Your task to perform on an android device: What's the weather? Image 0: 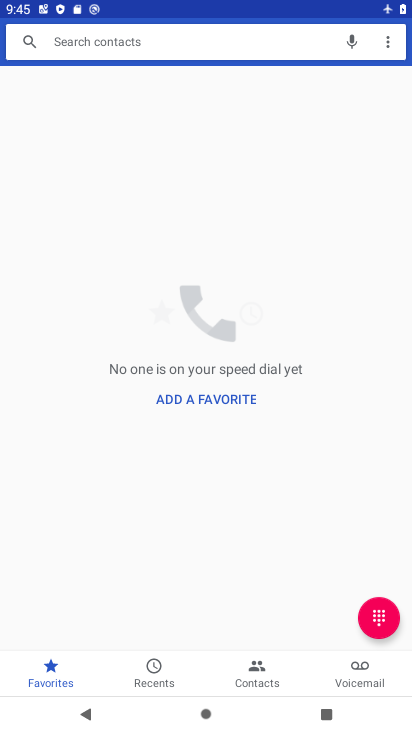
Step 0: press back button
Your task to perform on an android device: What's the weather? Image 1: 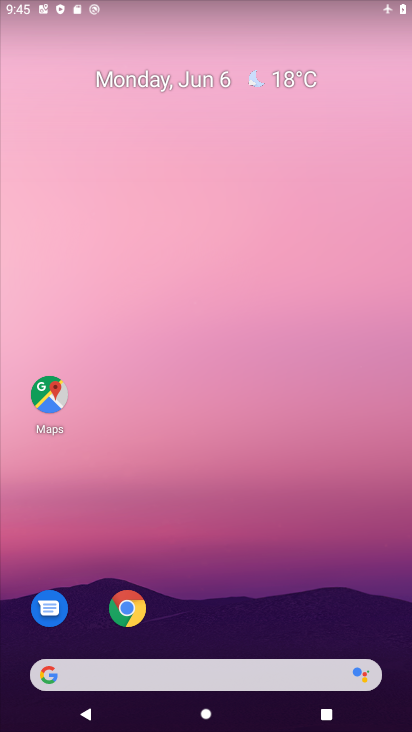
Step 1: drag from (268, 587) to (195, 172)
Your task to perform on an android device: What's the weather? Image 2: 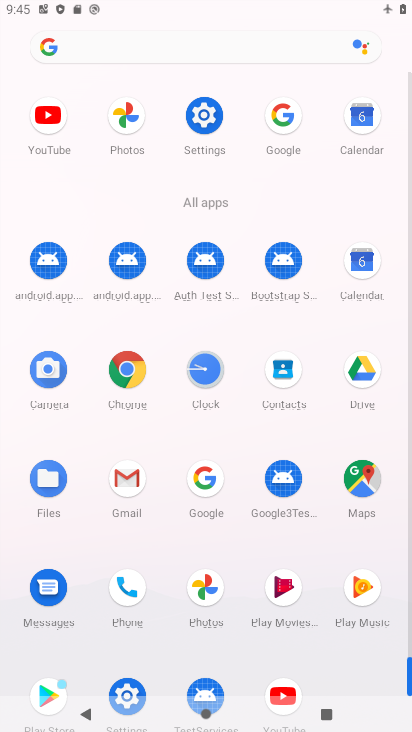
Step 2: click (285, 112)
Your task to perform on an android device: What's the weather? Image 3: 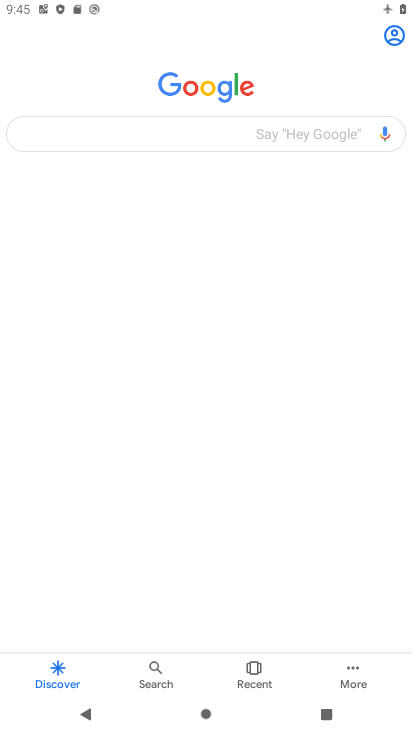
Step 3: click (210, 132)
Your task to perform on an android device: What's the weather? Image 4: 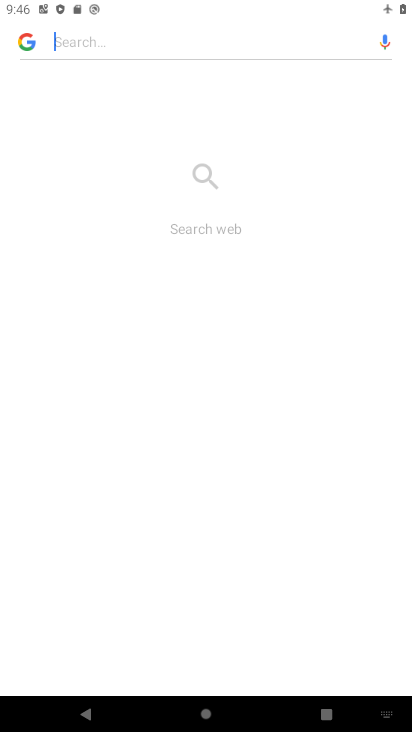
Step 4: type "weather"
Your task to perform on an android device: What's the weather? Image 5: 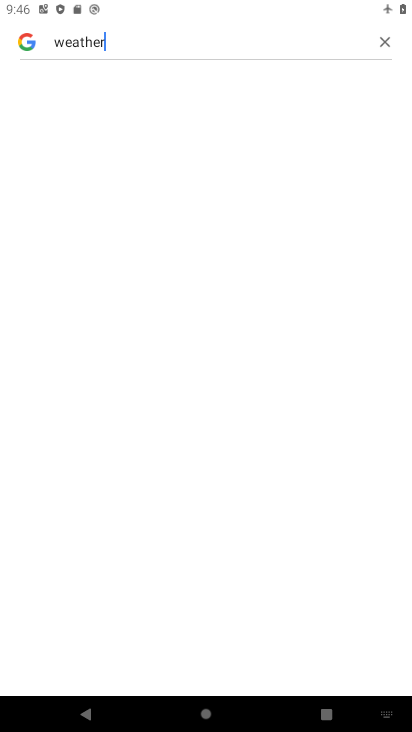
Step 5: task complete